Your task to perform on an android device: turn off translation in the chrome app Image 0: 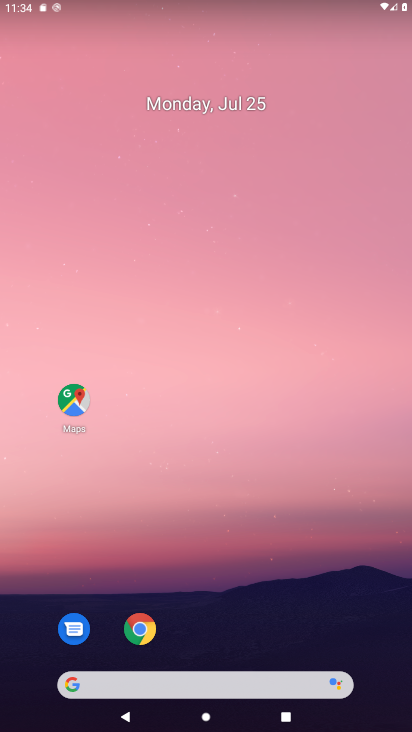
Step 0: click (132, 632)
Your task to perform on an android device: turn off translation in the chrome app Image 1: 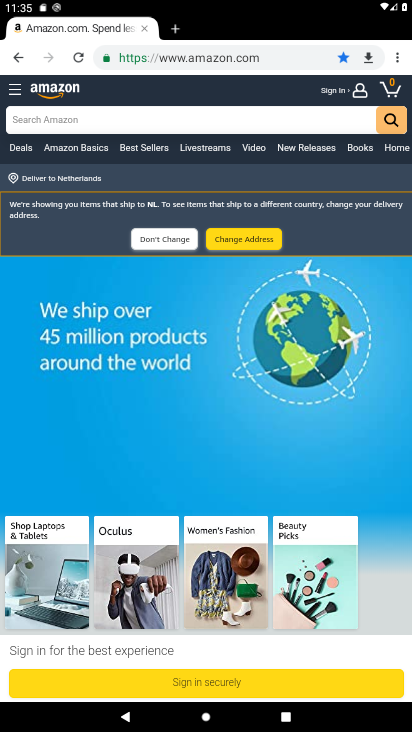
Step 1: drag from (394, 56) to (293, 386)
Your task to perform on an android device: turn off translation in the chrome app Image 2: 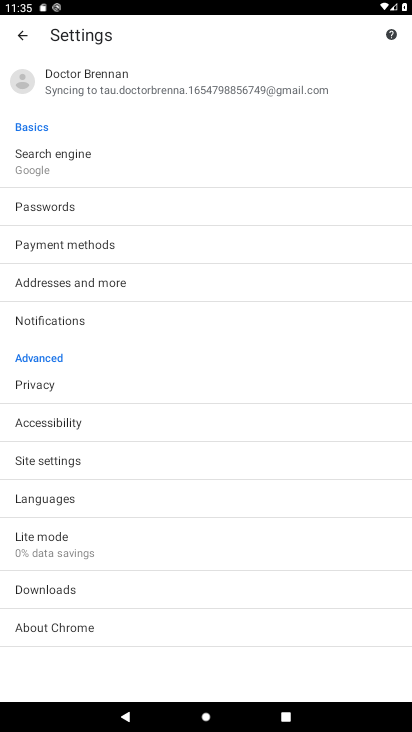
Step 2: click (68, 500)
Your task to perform on an android device: turn off translation in the chrome app Image 3: 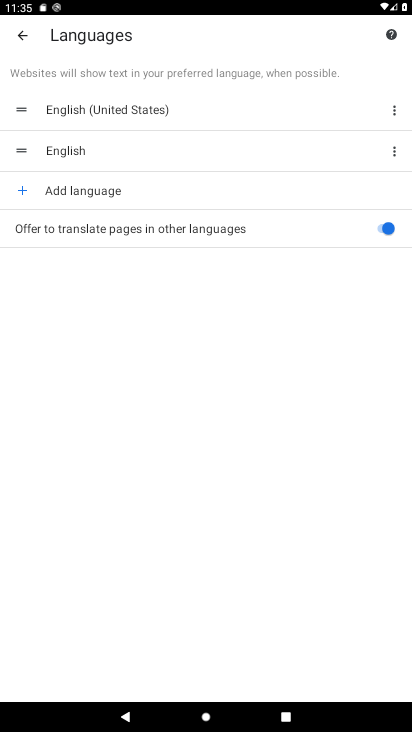
Step 3: click (383, 225)
Your task to perform on an android device: turn off translation in the chrome app Image 4: 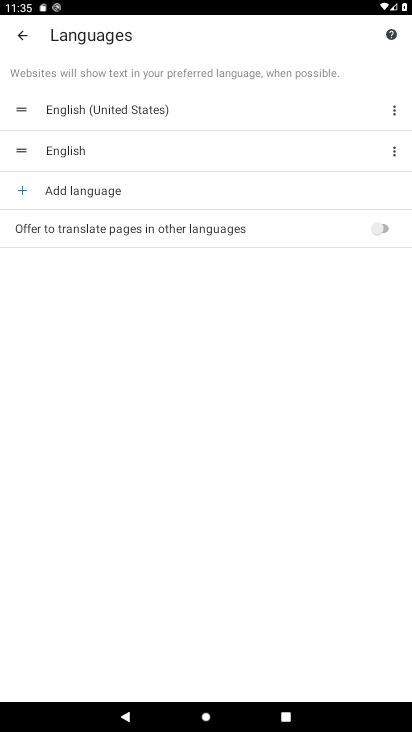
Step 4: task complete